Your task to perform on an android device: see creations saved in the google photos Image 0: 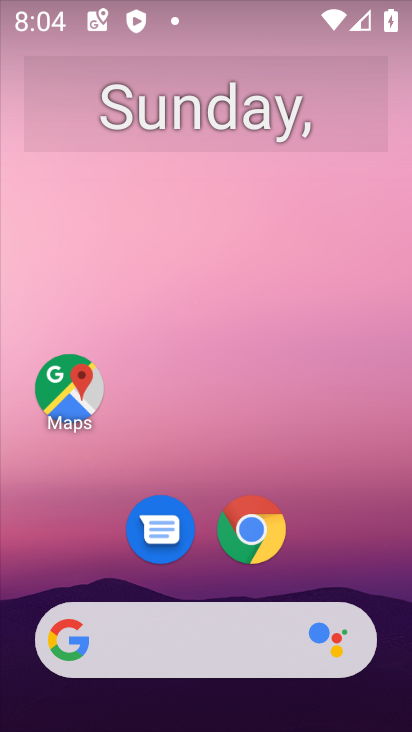
Step 0: drag from (368, 554) to (344, 161)
Your task to perform on an android device: see creations saved in the google photos Image 1: 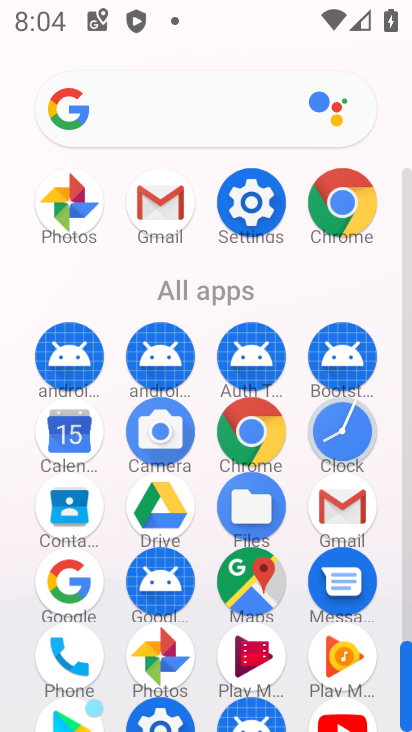
Step 1: drag from (296, 585) to (299, 269)
Your task to perform on an android device: see creations saved in the google photos Image 2: 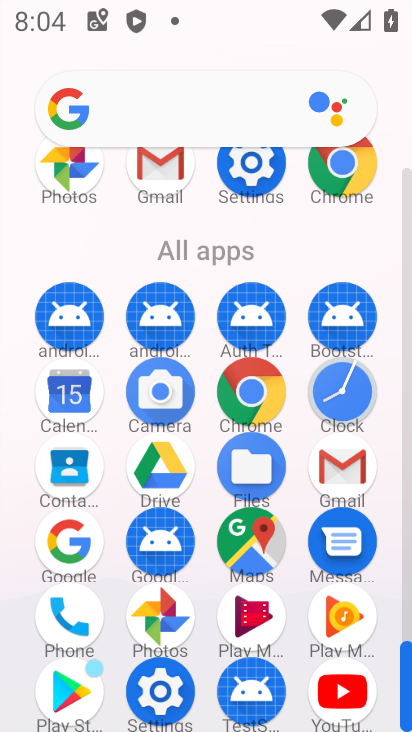
Step 2: click (156, 614)
Your task to perform on an android device: see creations saved in the google photos Image 3: 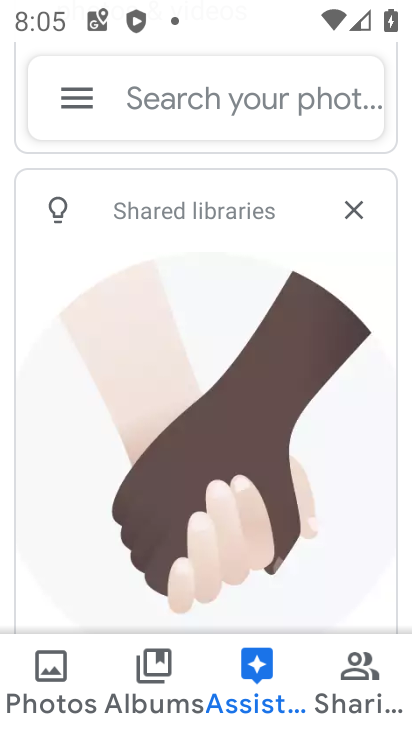
Step 3: click (107, 110)
Your task to perform on an android device: see creations saved in the google photos Image 4: 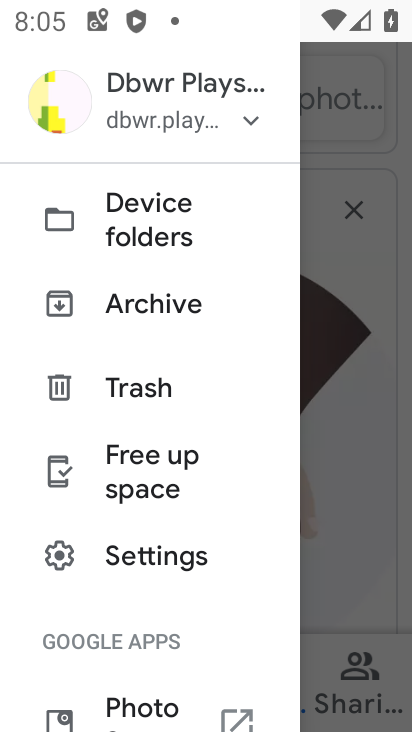
Step 4: click (345, 110)
Your task to perform on an android device: see creations saved in the google photos Image 5: 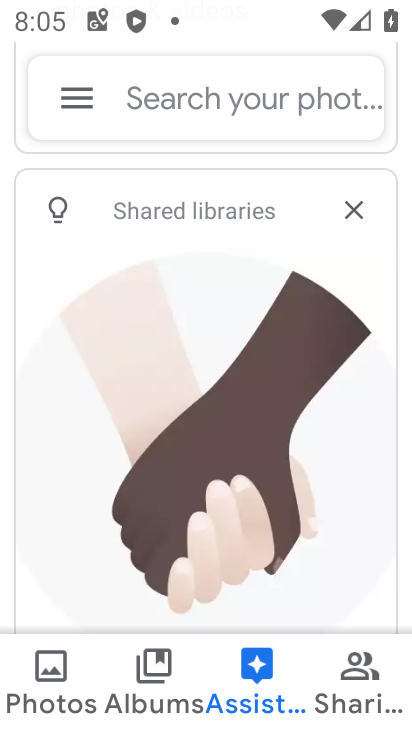
Step 5: click (314, 111)
Your task to perform on an android device: see creations saved in the google photos Image 6: 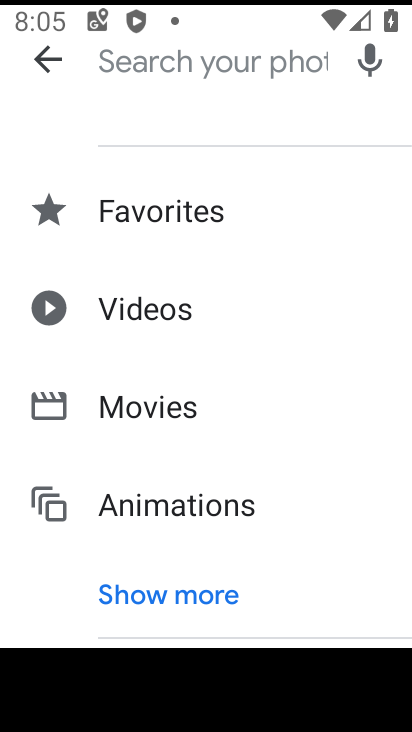
Step 6: type "creations"
Your task to perform on an android device: see creations saved in the google photos Image 7: 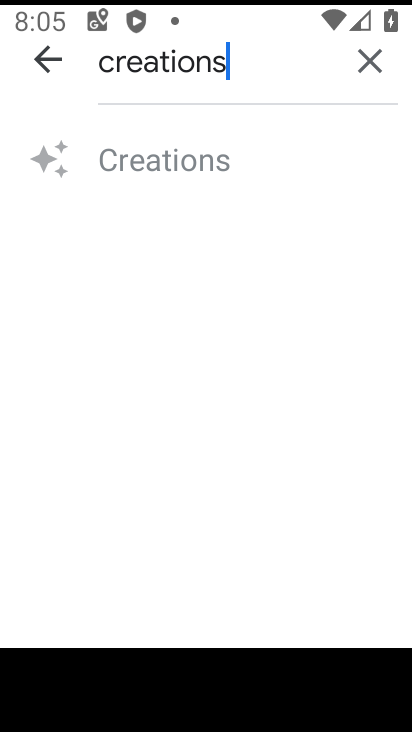
Step 7: click (181, 192)
Your task to perform on an android device: see creations saved in the google photos Image 8: 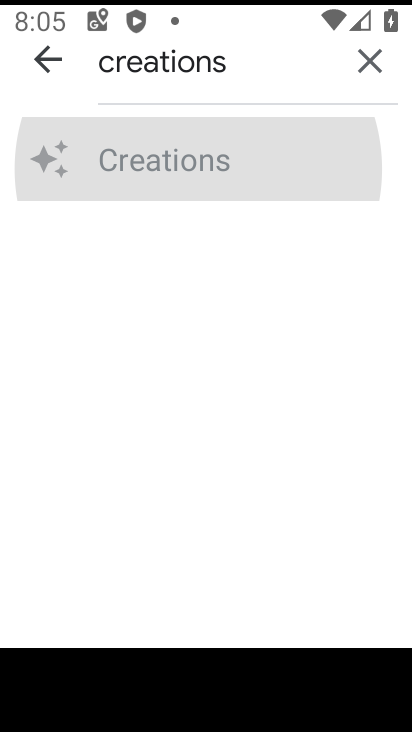
Step 8: click (179, 171)
Your task to perform on an android device: see creations saved in the google photos Image 9: 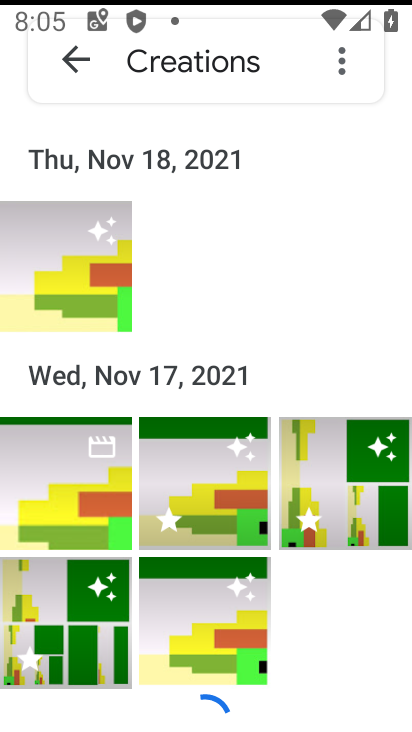
Step 9: task complete